Your task to perform on an android device: Open privacy settings Image 0: 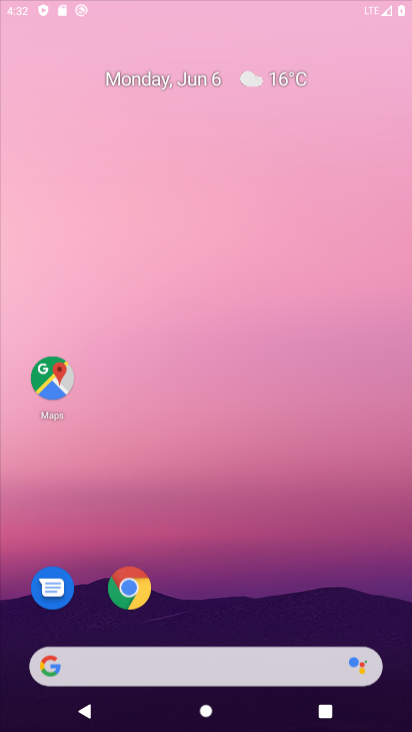
Step 0: drag from (302, 670) to (303, 68)
Your task to perform on an android device: Open privacy settings Image 1: 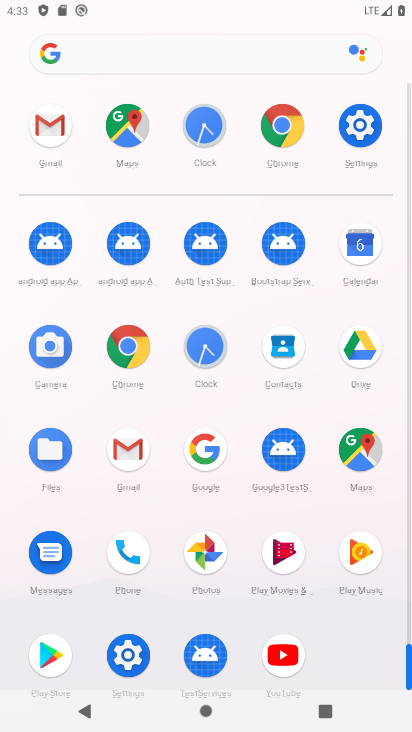
Step 1: click (363, 137)
Your task to perform on an android device: Open privacy settings Image 2: 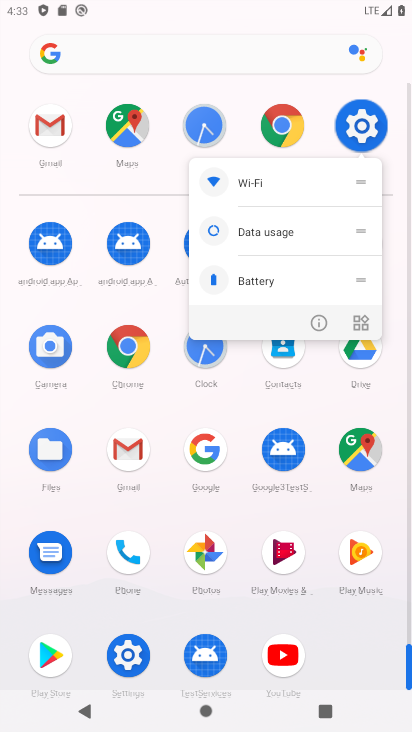
Step 2: click (363, 137)
Your task to perform on an android device: Open privacy settings Image 3: 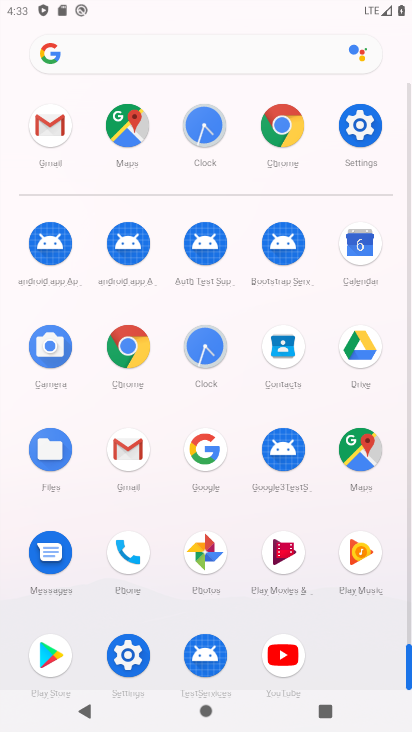
Step 3: click (363, 140)
Your task to perform on an android device: Open privacy settings Image 4: 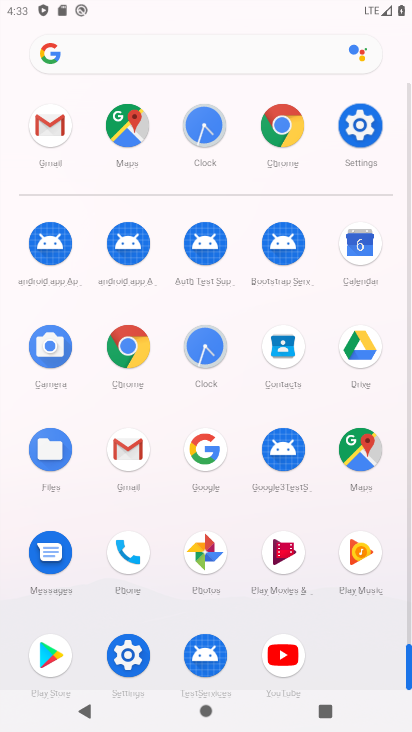
Step 4: click (364, 143)
Your task to perform on an android device: Open privacy settings Image 5: 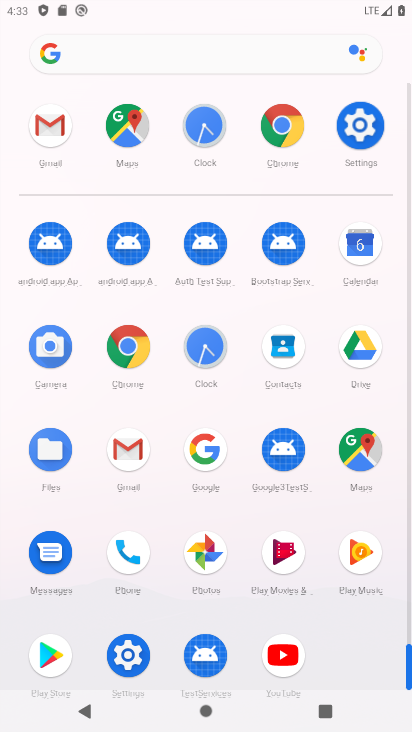
Step 5: click (362, 143)
Your task to perform on an android device: Open privacy settings Image 6: 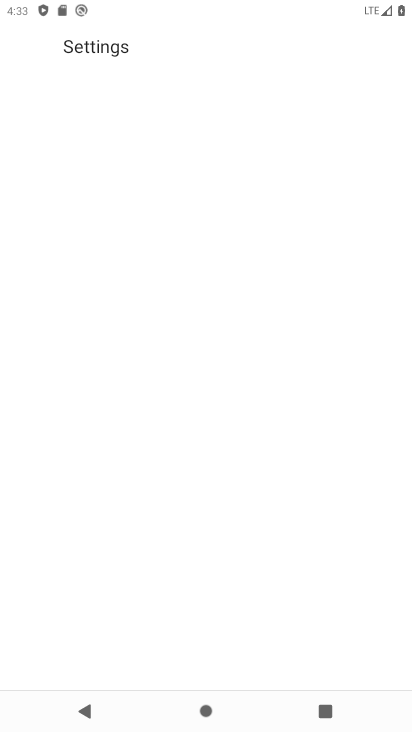
Step 6: click (366, 137)
Your task to perform on an android device: Open privacy settings Image 7: 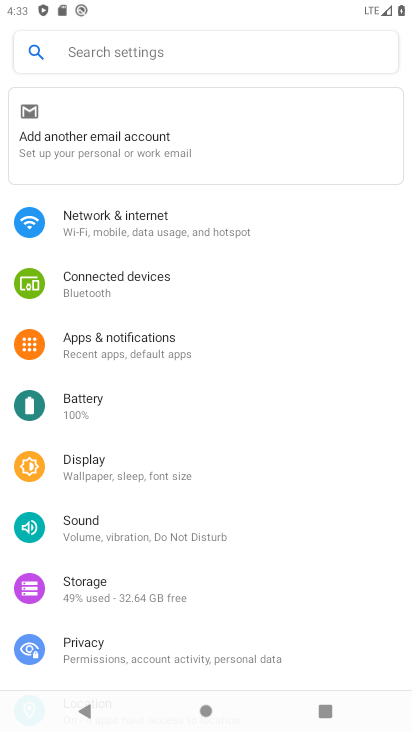
Step 7: click (109, 654)
Your task to perform on an android device: Open privacy settings Image 8: 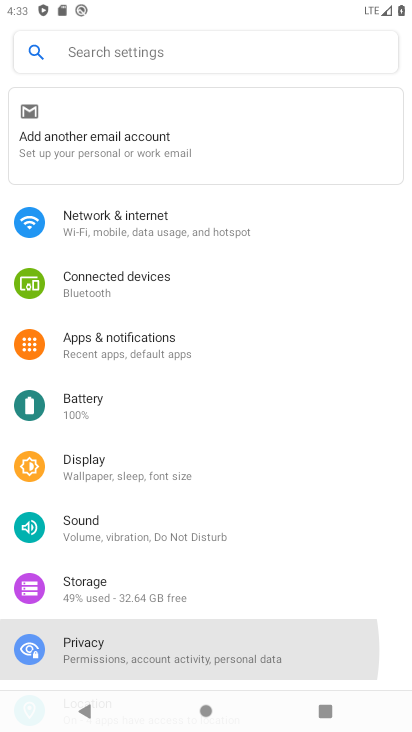
Step 8: click (107, 654)
Your task to perform on an android device: Open privacy settings Image 9: 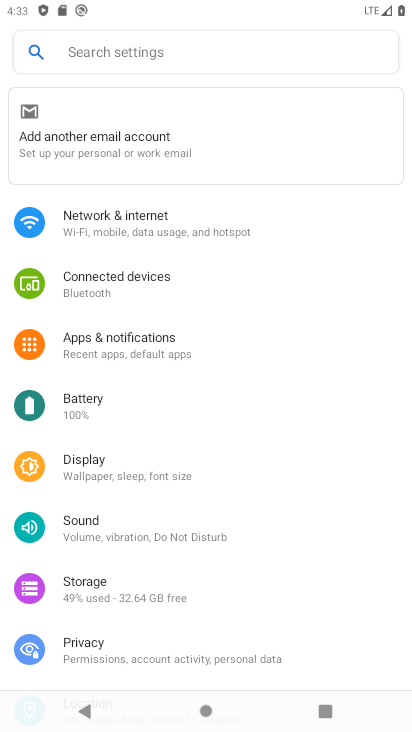
Step 9: click (103, 650)
Your task to perform on an android device: Open privacy settings Image 10: 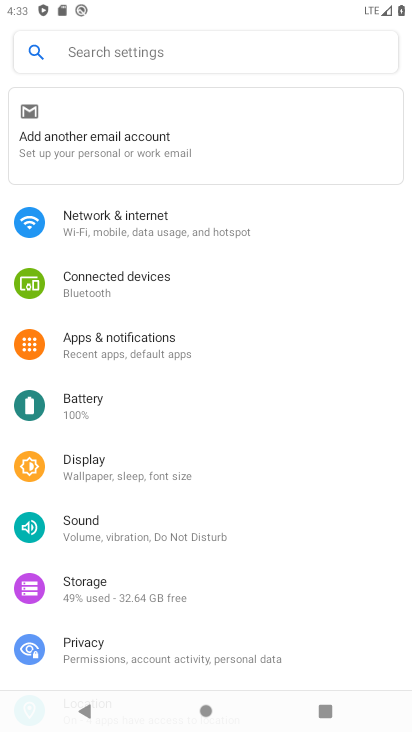
Step 10: click (102, 649)
Your task to perform on an android device: Open privacy settings Image 11: 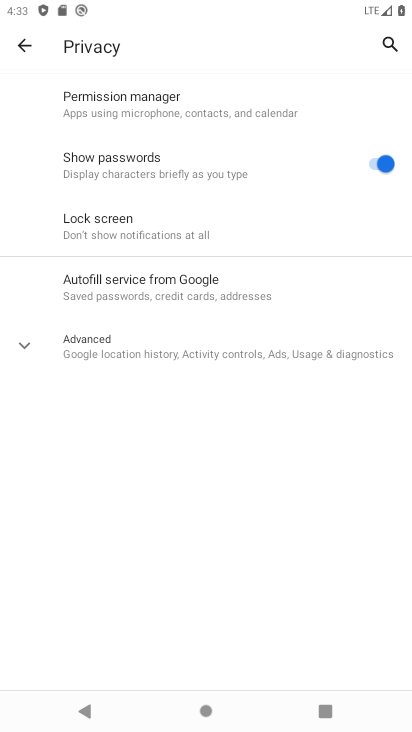
Step 11: task complete